Your task to perform on an android device: Open calendar and show me the second week of next month Image 0: 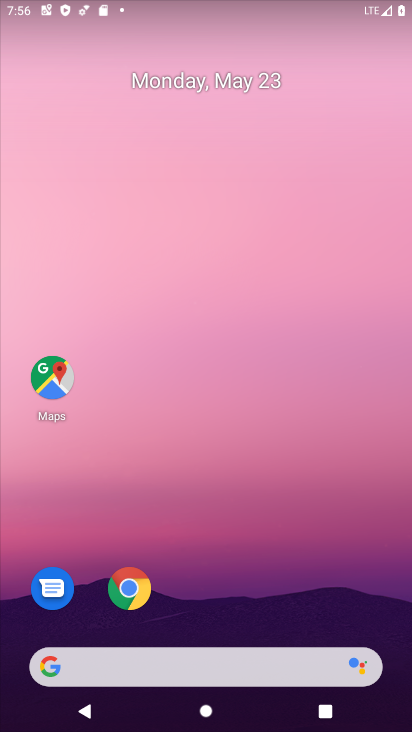
Step 0: drag from (400, 635) to (382, 131)
Your task to perform on an android device: Open calendar and show me the second week of next month Image 1: 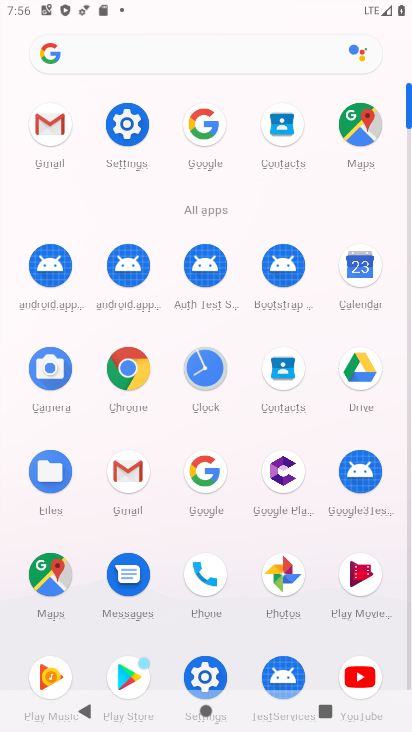
Step 1: click (355, 269)
Your task to perform on an android device: Open calendar and show me the second week of next month Image 2: 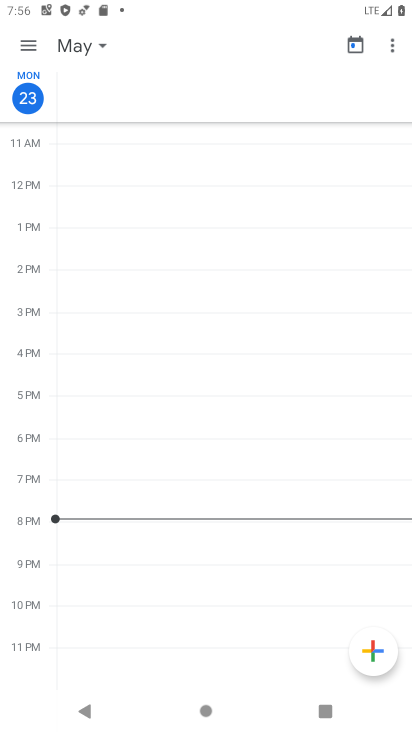
Step 2: click (104, 46)
Your task to perform on an android device: Open calendar and show me the second week of next month Image 3: 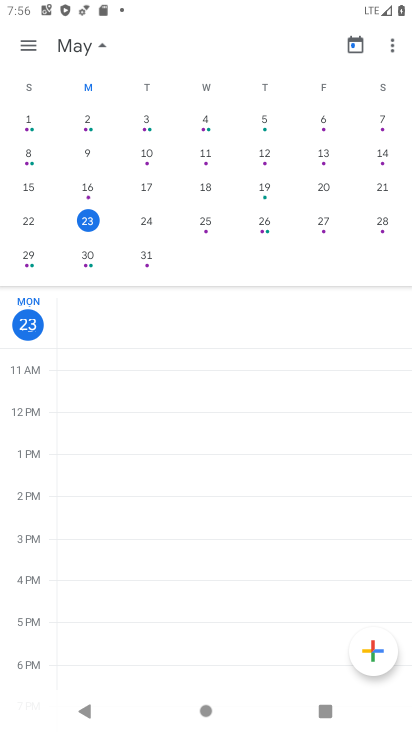
Step 3: drag from (399, 155) to (34, 148)
Your task to perform on an android device: Open calendar and show me the second week of next month Image 4: 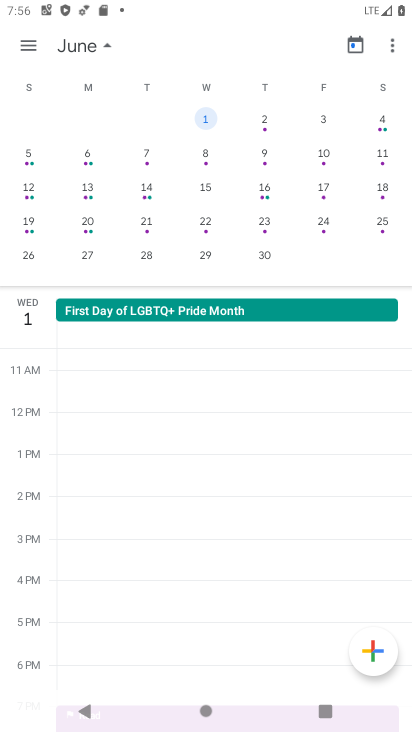
Step 4: click (204, 148)
Your task to perform on an android device: Open calendar and show me the second week of next month Image 5: 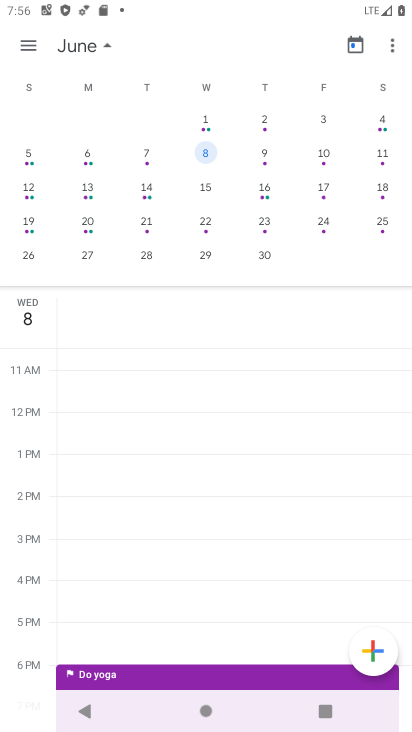
Step 5: task complete